Your task to perform on an android device: Go to network settings Image 0: 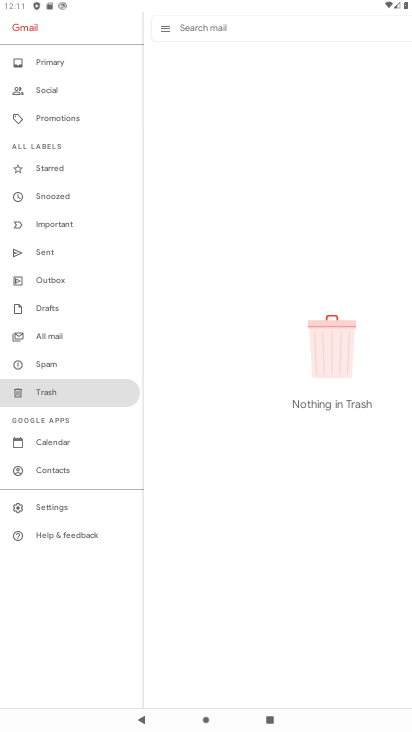
Step 0: press home button
Your task to perform on an android device: Go to network settings Image 1: 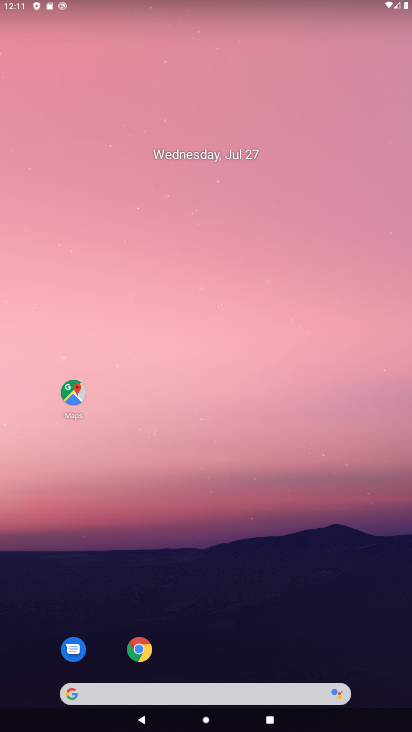
Step 1: drag from (225, 608) to (110, 49)
Your task to perform on an android device: Go to network settings Image 2: 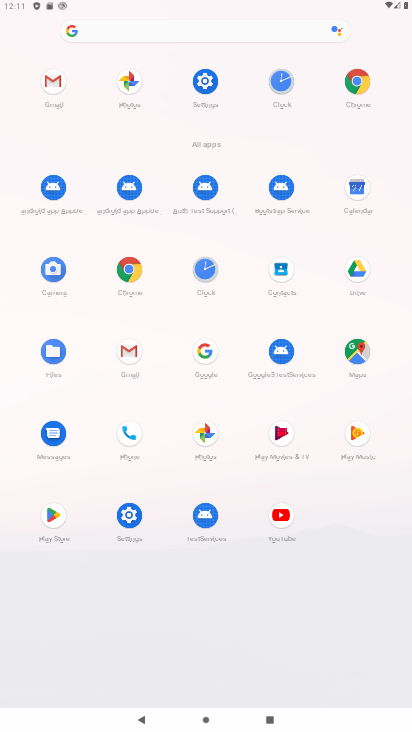
Step 2: click (203, 84)
Your task to perform on an android device: Go to network settings Image 3: 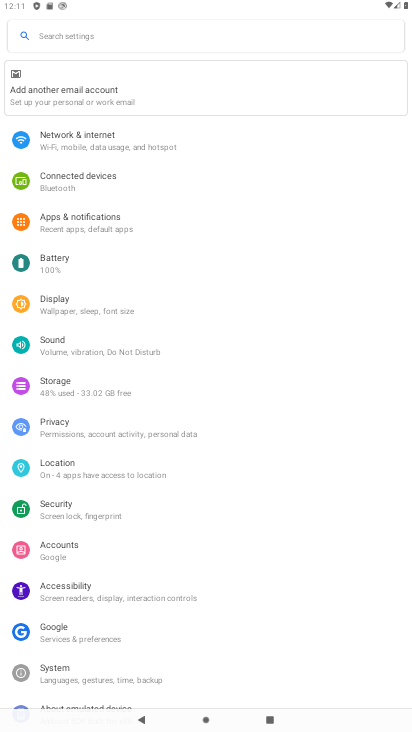
Step 3: click (69, 132)
Your task to perform on an android device: Go to network settings Image 4: 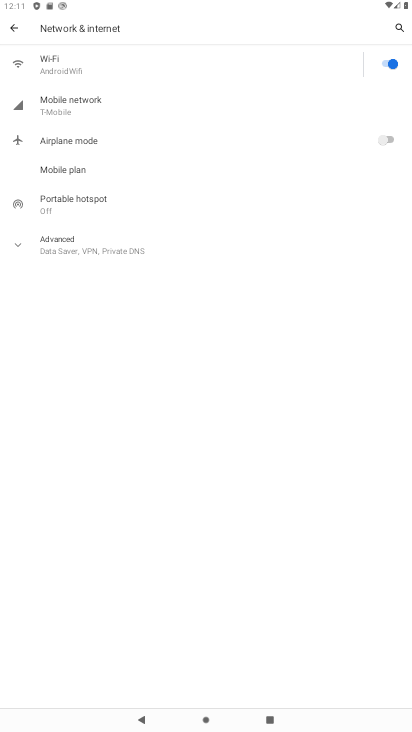
Step 4: task complete